Your task to perform on an android device: Go to accessibility settings Image 0: 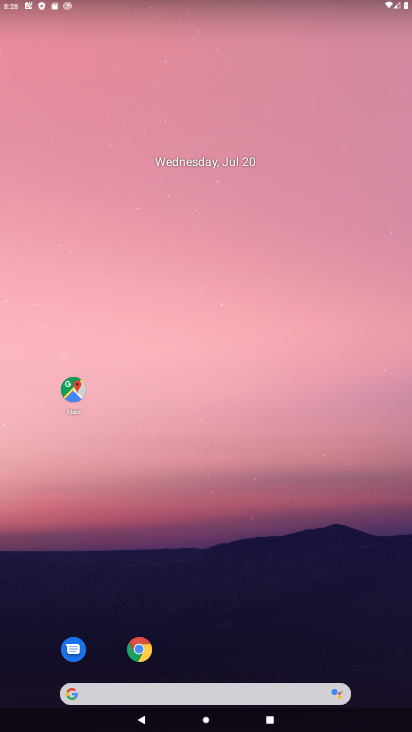
Step 0: press home button
Your task to perform on an android device: Go to accessibility settings Image 1: 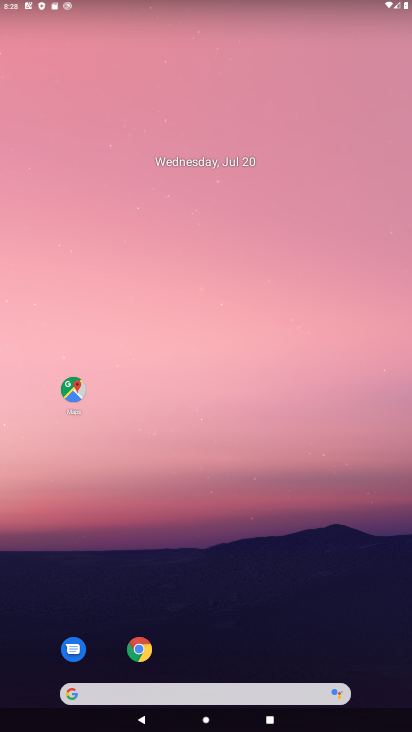
Step 1: drag from (185, 690) to (274, 8)
Your task to perform on an android device: Go to accessibility settings Image 2: 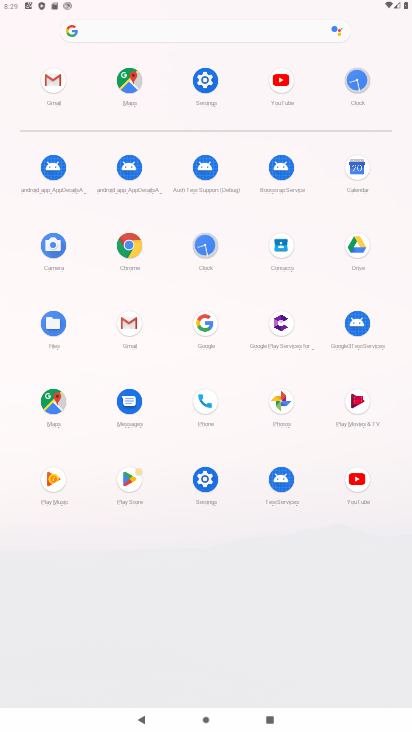
Step 2: click (206, 80)
Your task to perform on an android device: Go to accessibility settings Image 3: 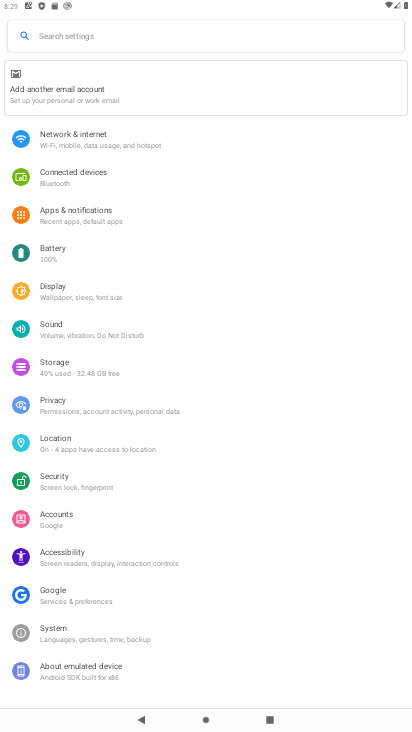
Step 3: click (72, 554)
Your task to perform on an android device: Go to accessibility settings Image 4: 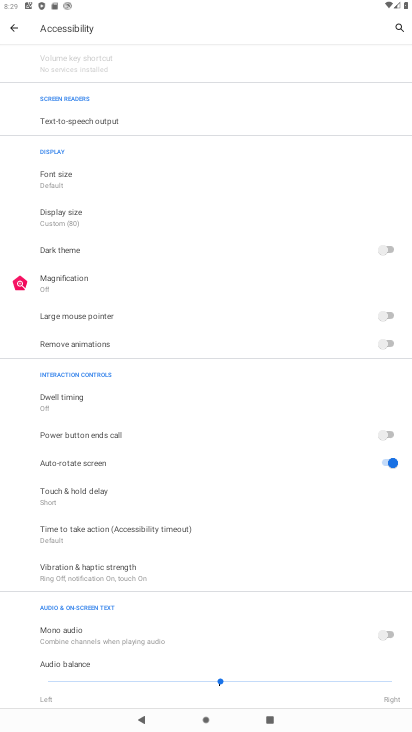
Step 4: task complete